Your task to perform on an android device: turn on javascript in the chrome app Image 0: 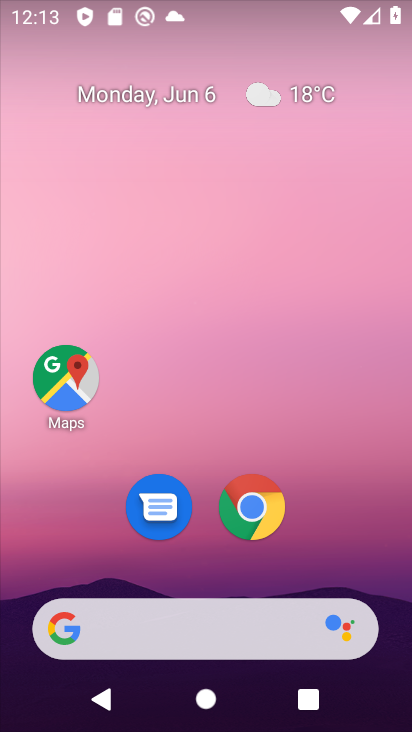
Step 0: click (263, 515)
Your task to perform on an android device: turn on javascript in the chrome app Image 1: 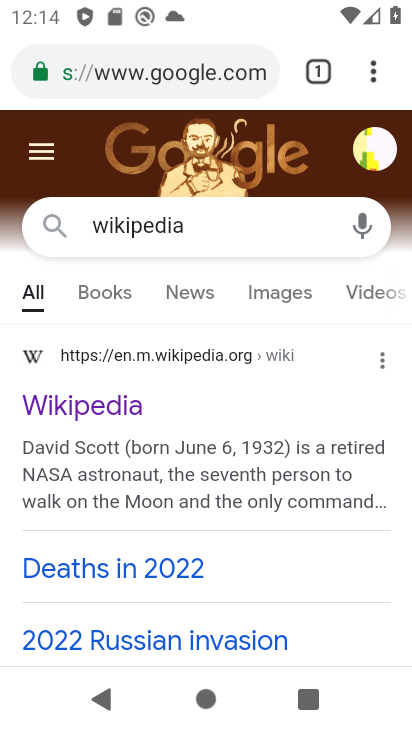
Step 1: click (383, 71)
Your task to perform on an android device: turn on javascript in the chrome app Image 2: 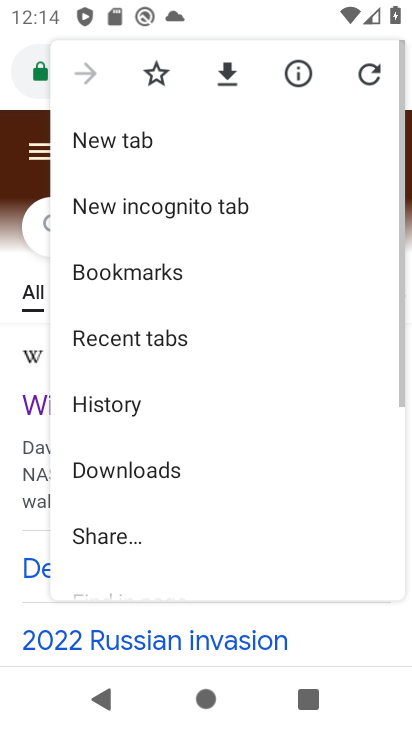
Step 2: drag from (148, 525) to (168, 118)
Your task to perform on an android device: turn on javascript in the chrome app Image 3: 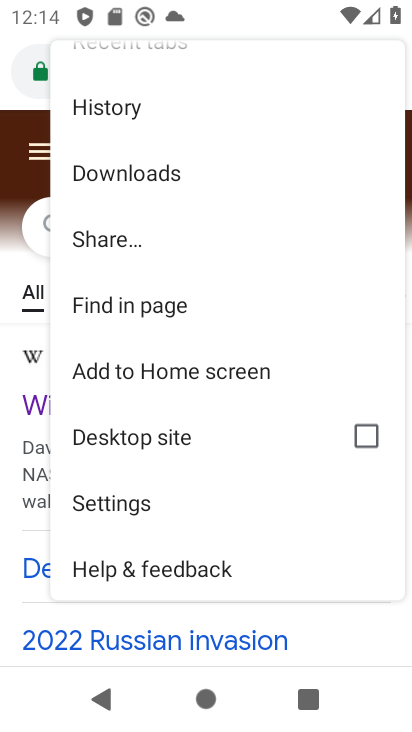
Step 3: click (128, 504)
Your task to perform on an android device: turn on javascript in the chrome app Image 4: 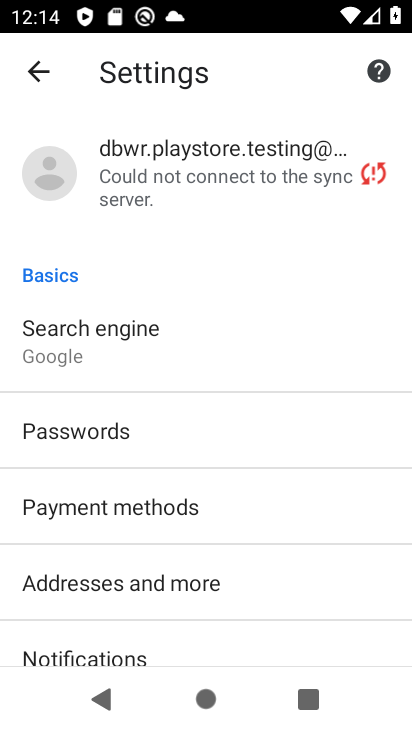
Step 4: drag from (189, 587) to (228, 212)
Your task to perform on an android device: turn on javascript in the chrome app Image 5: 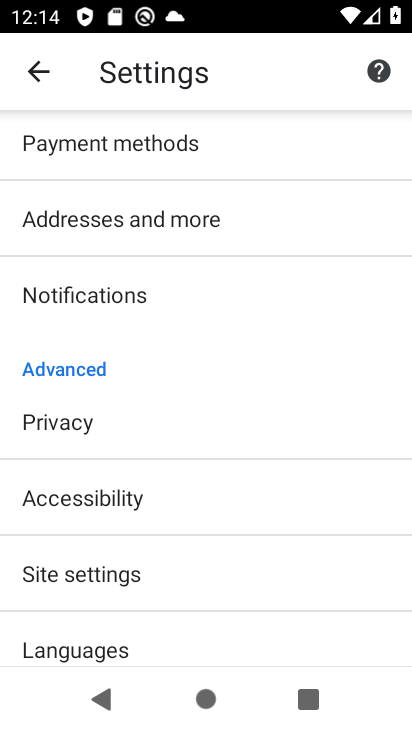
Step 5: click (130, 572)
Your task to perform on an android device: turn on javascript in the chrome app Image 6: 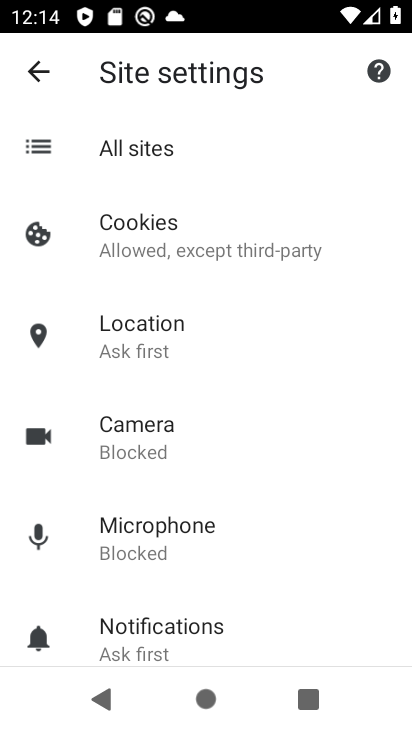
Step 6: drag from (190, 596) to (188, 337)
Your task to perform on an android device: turn on javascript in the chrome app Image 7: 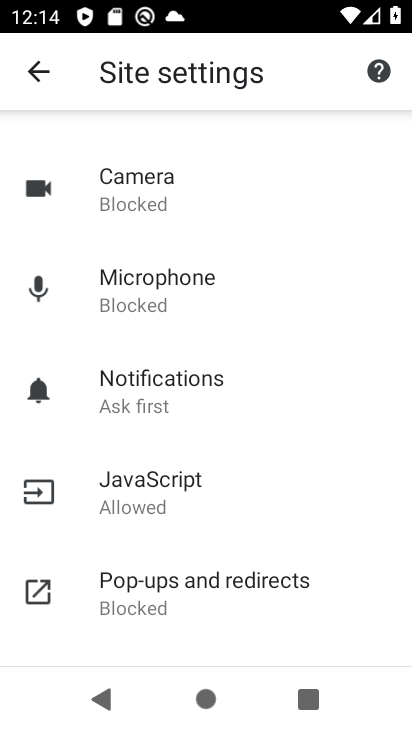
Step 7: click (169, 507)
Your task to perform on an android device: turn on javascript in the chrome app Image 8: 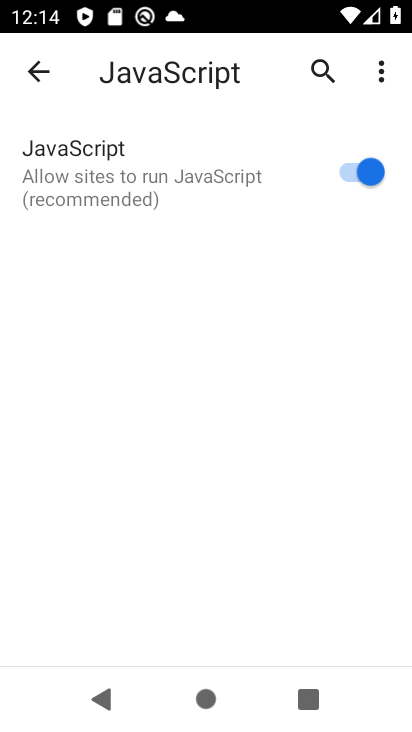
Step 8: task complete